Your task to perform on an android device: Open Chrome and go to the settings page Image 0: 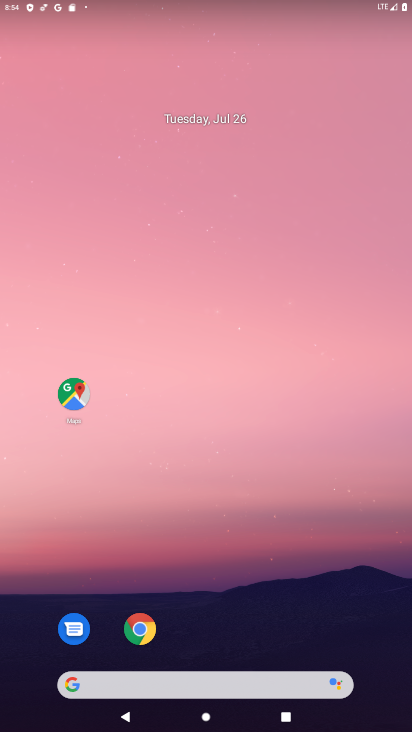
Step 0: click (309, 55)
Your task to perform on an android device: Open Chrome and go to the settings page Image 1: 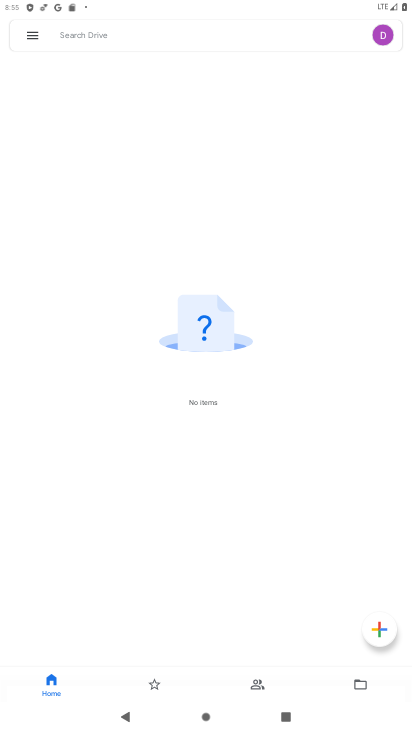
Step 1: press home button
Your task to perform on an android device: Open Chrome and go to the settings page Image 2: 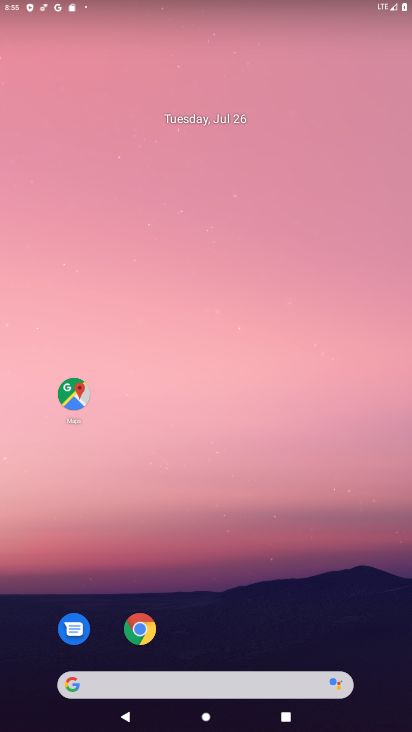
Step 2: click (140, 619)
Your task to perform on an android device: Open Chrome and go to the settings page Image 3: 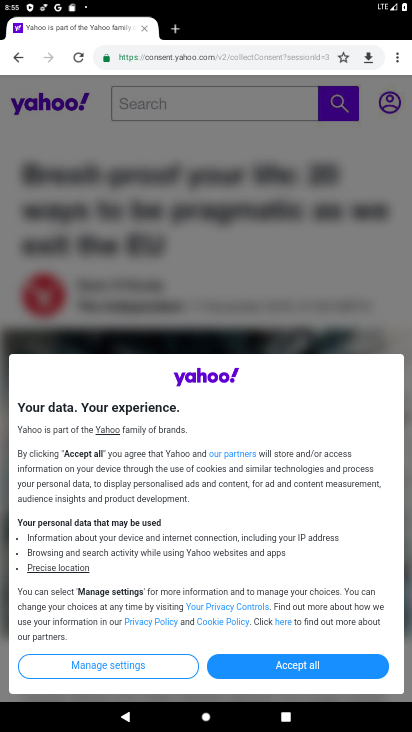
Step 3: click (146, 62)
Your task to perform on an android device: Open Chrome and go to the settings page Image 4: 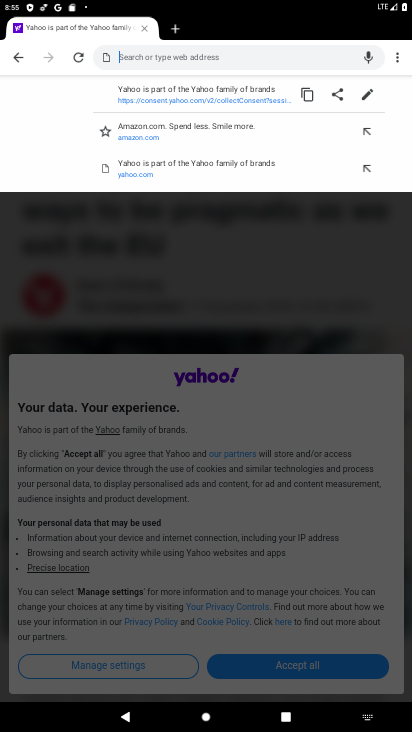
Step 4: task complete